Your task to perform on an android device: Go to eBay Image 0: 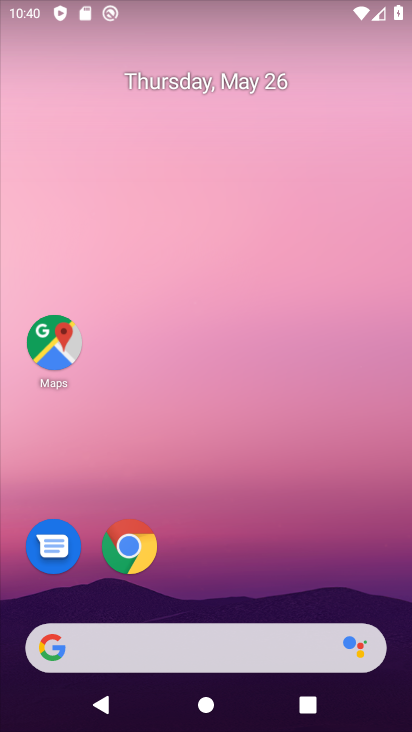
Step 0: drag from (265, 563) to (346, 144)
Your task to perform on an android device: Go to eBay Image 1: 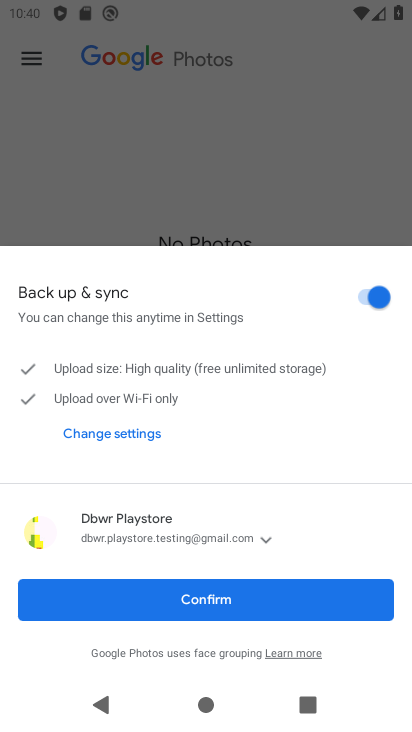
Step 1: press home button
Your task to perform on an android device: Go to eBay Image 2: 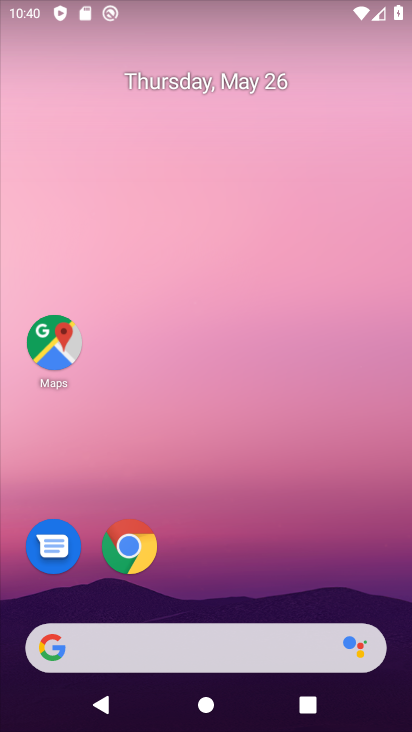
Step 2: drag from (205, 558) to (312, 170)
Your task to perform on an android device: Go to eBay Image 3: 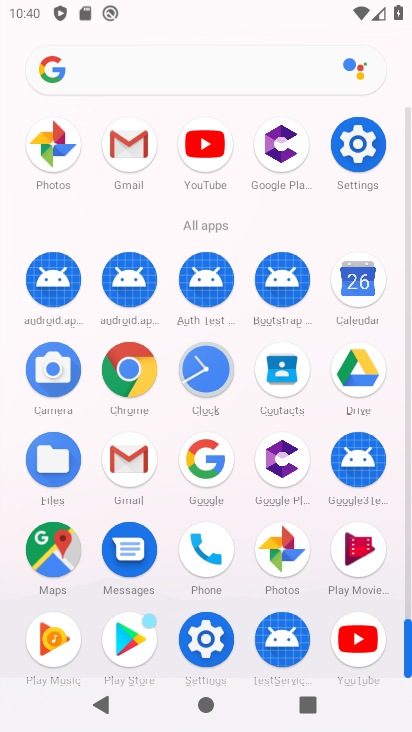
Step 3: click (149, 374)
Your task to perform on an android device: Go to eBay Image 4: 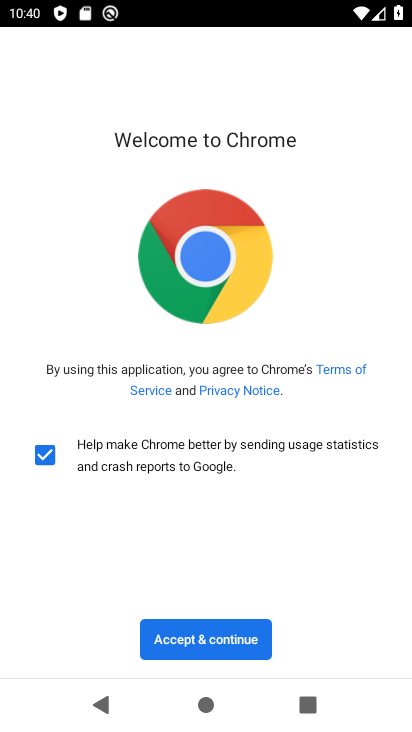
Step 4: click (235, 634)
Your task to perform on an android device: Go to eBay Image 5: 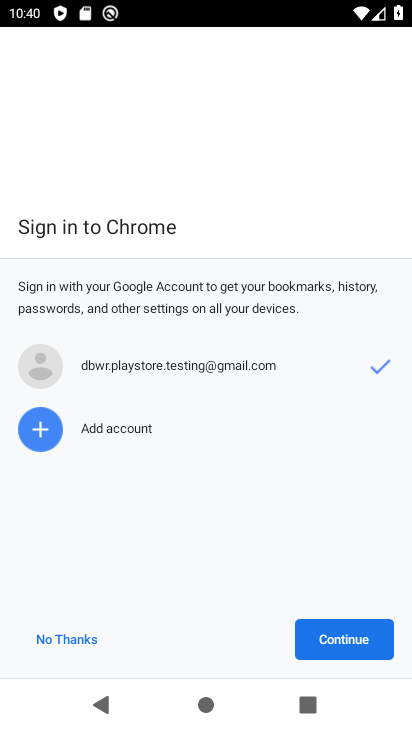
Step 5: click (357, 636)
Your task to perform on an android device: Go to eBay Image 6: 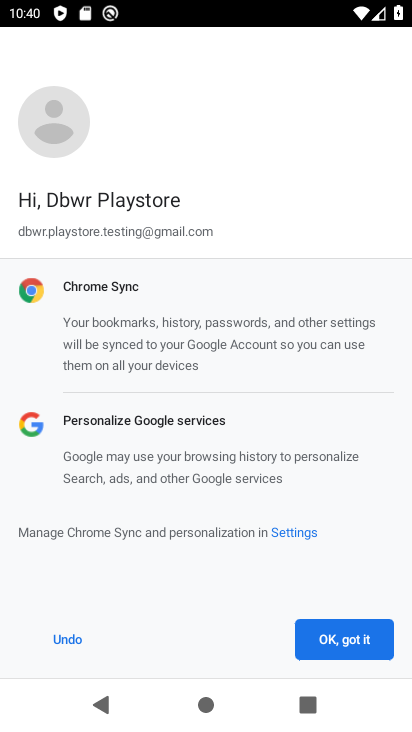
Step 6: click (361, 638)
Your task to perform on an android device: Go to eBay Image 7: 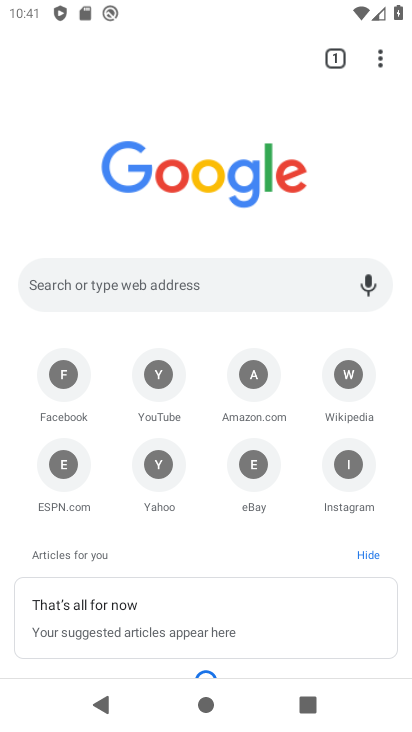
Step 7: click (159, 283)
Your task to perform on an android device: Go to eBay Image 8: 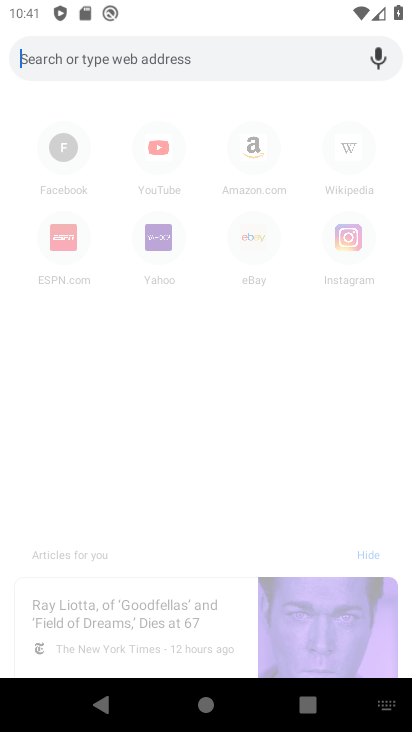
Step 8: type "ebay"
Your task to perform on an android device: Go to eBay Image 9: 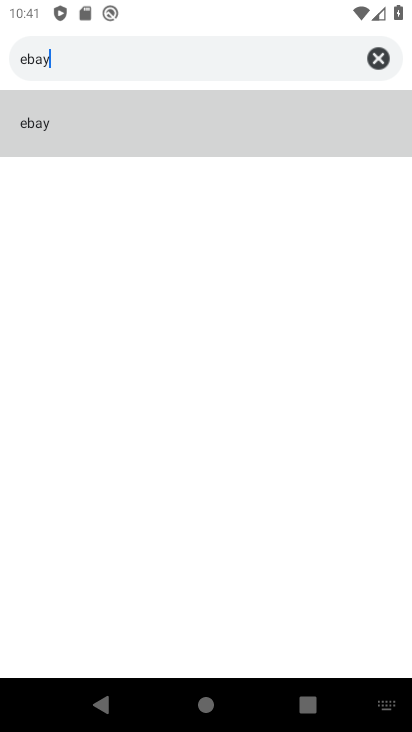
Step 9: type ""
Your task to perform on an android device: Go to eBay Image 10: 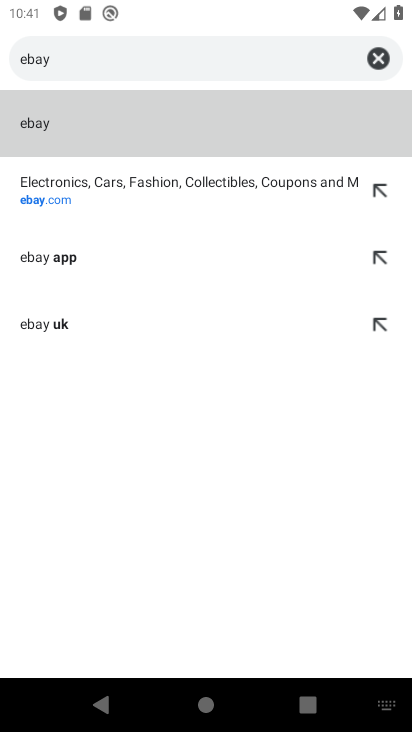
Step 10: click (151, 184)
Your task to perform on an android device: Go to eBay Image 11: 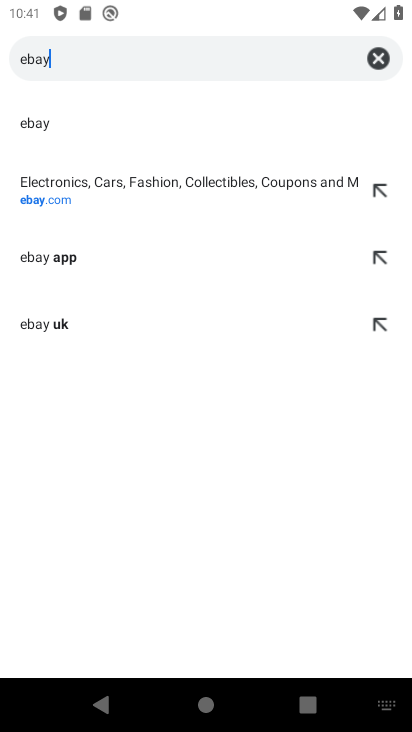
Step 11: click (151, 185)
Your task to perform on an android device: Go to eBay Image 12: 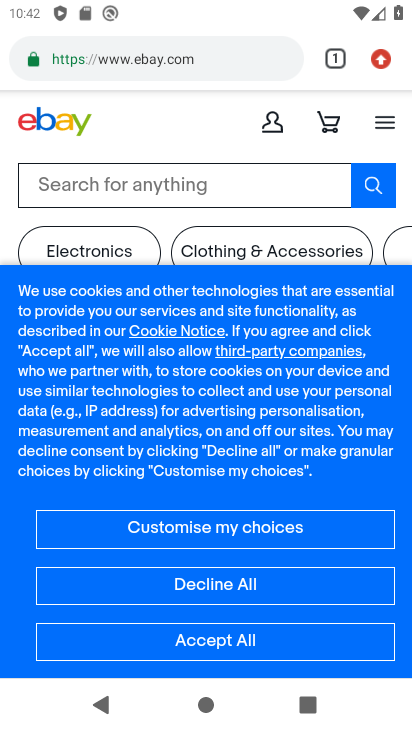
Step 12: task complete